Your task to perform on an android device: Open the Play Movies app and select the watchlist tab. Image 0: 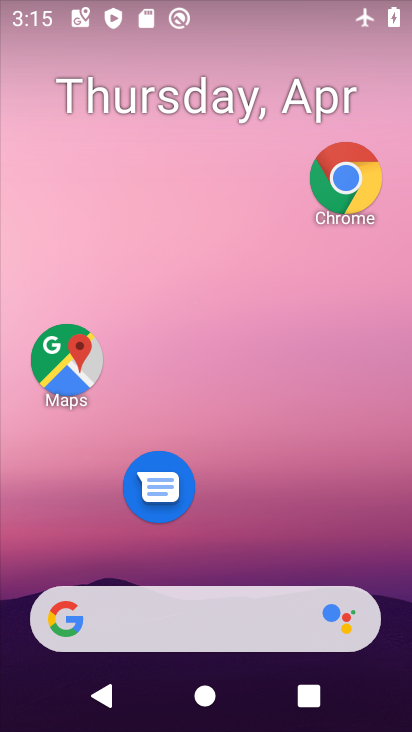
Step 0: drag from (255, 636) to (245, 291)
Your task to perform on an android device: Open the Play Movies app and select the watchlist tab. Image 1: 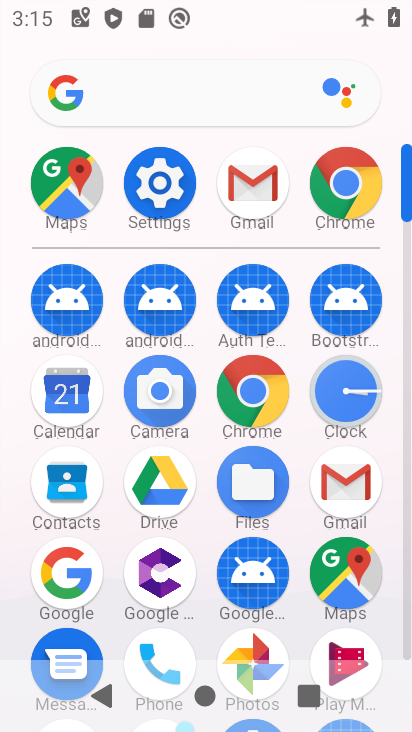
Step 1: click (378, 497)
Your task to perform on an android device: Open the Play Movies app and select the watchlist tab. Image 2: 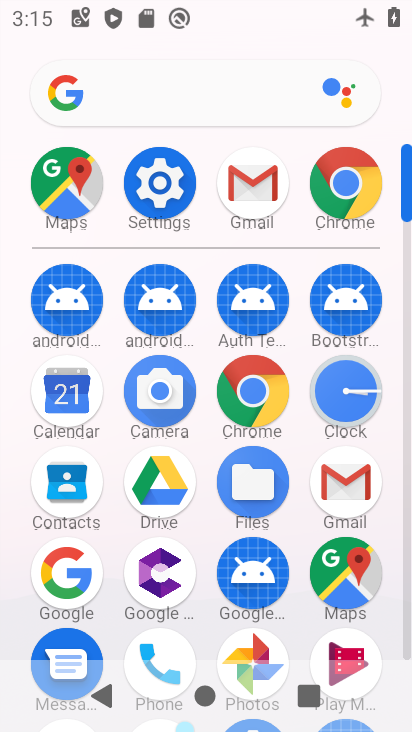
Step 2: click (410, 519)
Your task to perform on an android device: Open the Play Movies app and select the watchlist tab. Image 3: 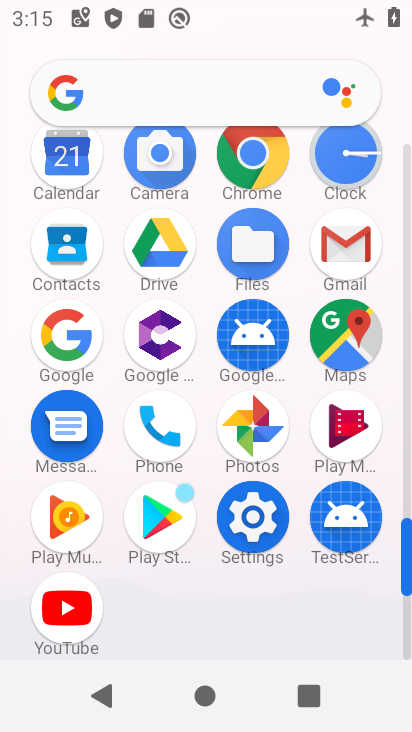
Step 3: click (342, 442)
Your task to perform on an android device: Open the Play Movies app and select the watchlist tab. Image 4: 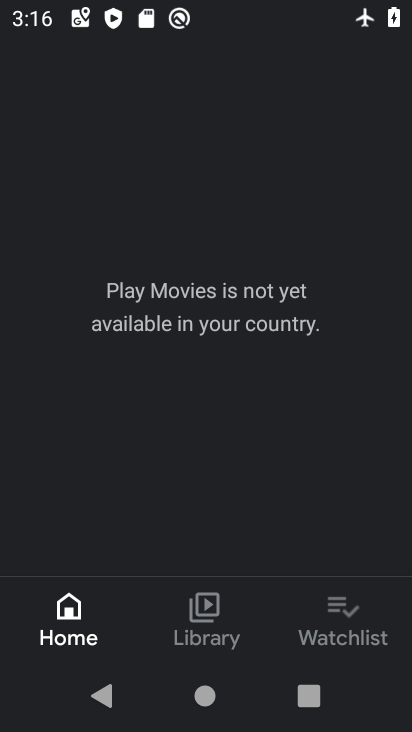
Step 4: click (352, 622)
Your task to perform on an android device: Open the Play Movies app and select the watchlist tab. Image 5: 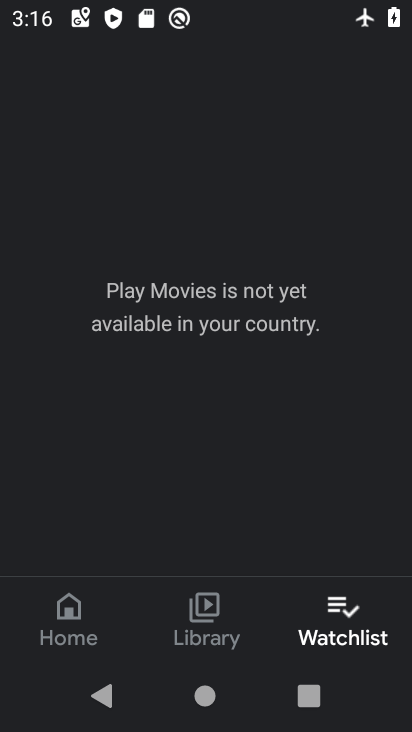
Step 5: task complete